Your task to perform on an android device: set the stopwatch Image 0: 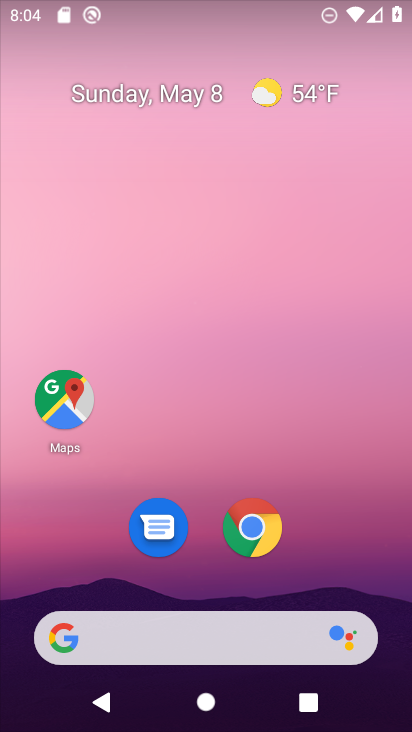
Step 0: drag from (355, 585) to (323, 111)
Your task to perform on an android device: set the stopwatch Image 1: 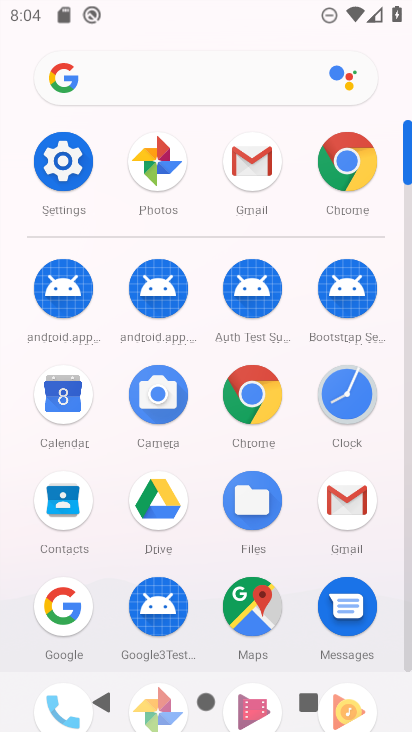
Step 1: click (336, 412)
Your task to perform on an android device: set the stopwatch Image 2: 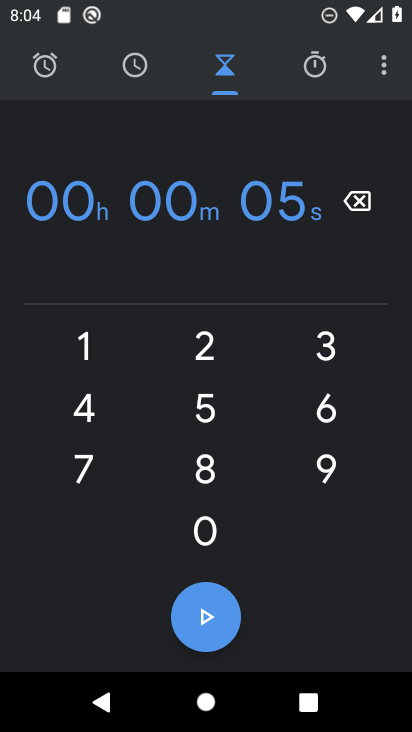
Step 2: click (314, 77)
Your task to perform on an android device: set the stopwatch Image 3: 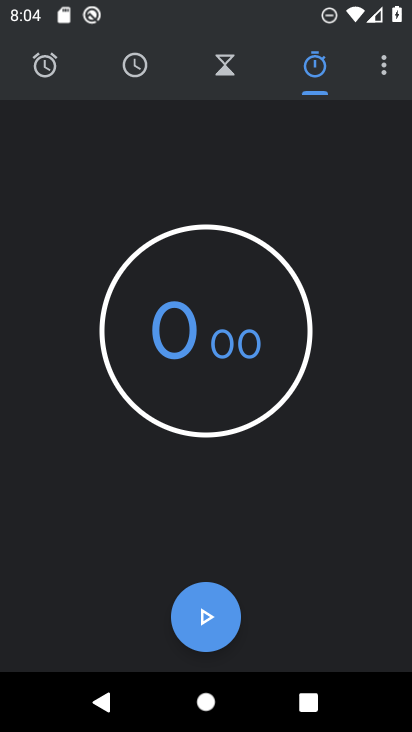
Step 3: click (203, 605)
Your task to perform on an android device: set the stopwatch Image 4: 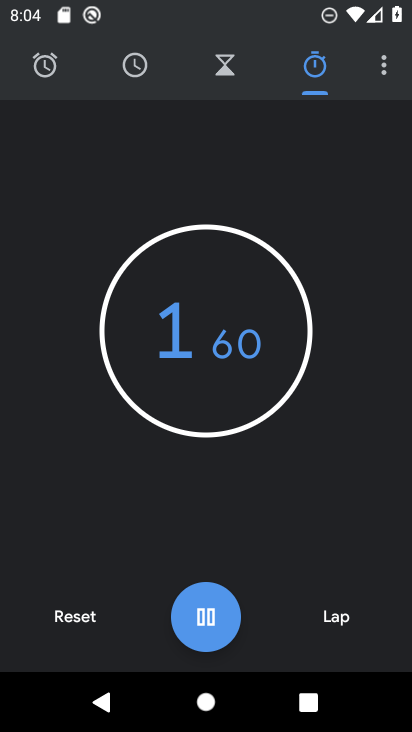
Step 4: click (204, 608)
Your task to perform on an android device: set the stopwatch Image 5: 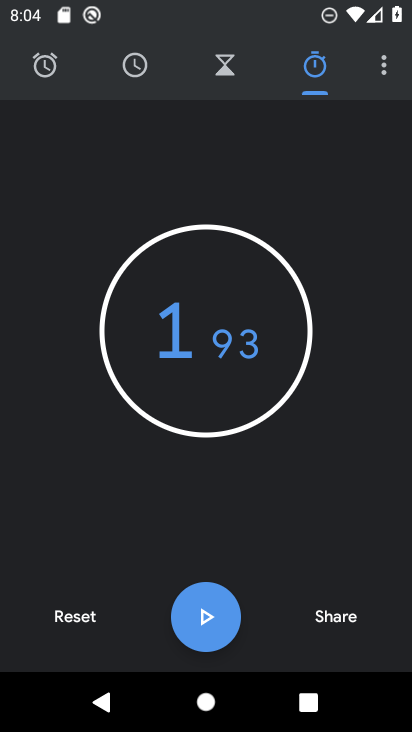
Step 5: task complete